Your task to perform on an android device: turn off airplane mode Image 0: 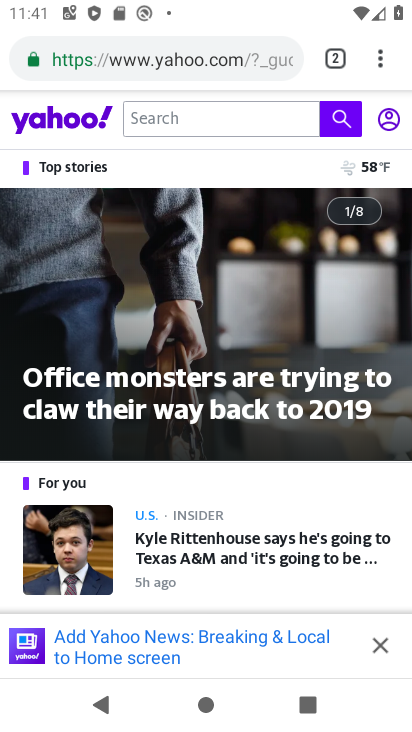
Step 0: drag from (204, 3) to (236, 667)
Your task to perform on an android device: turn off airplane mode Image 1: 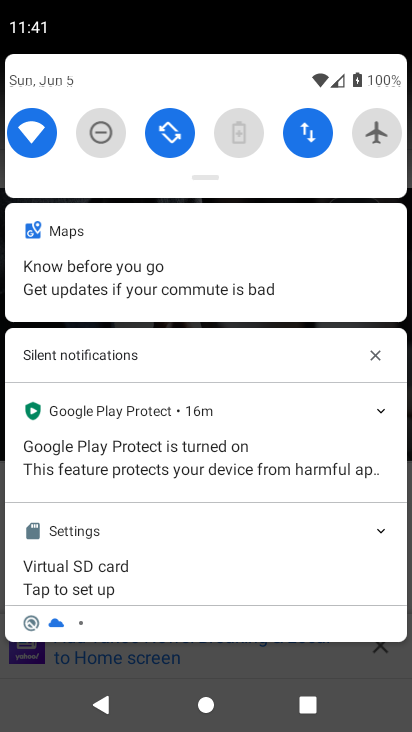
Step 1: click (380, 175)
Your task to perform on an android device: turn off airplane mode Image 2: 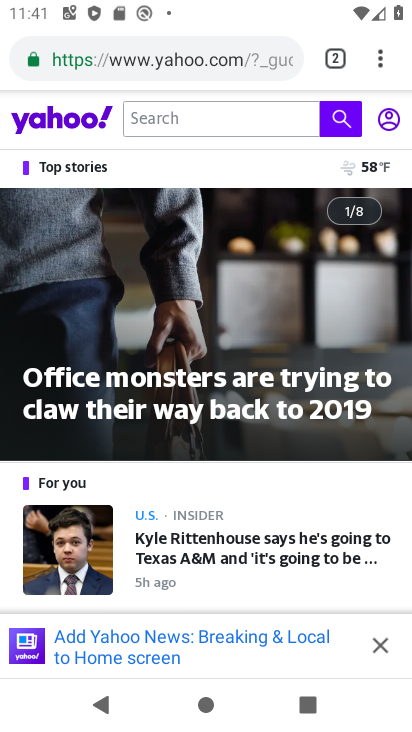
Step 2: task complete